Your task to perform on an android device: Open Youtube and go to the subscriptions tab Image 0: 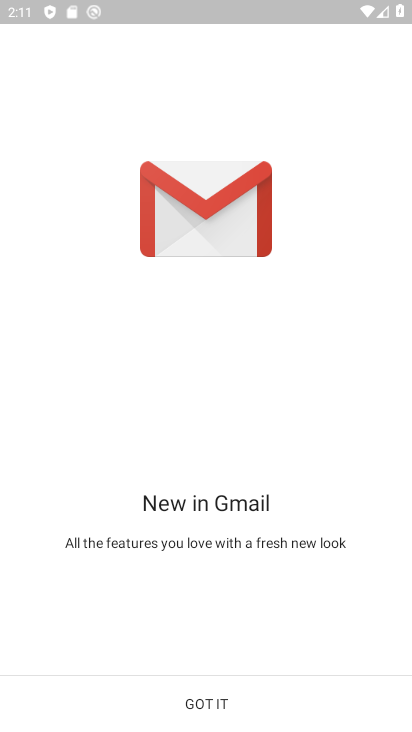
Step 0: press home button
Your task to perform on an android device: Open Youtube and go to the subscriptions tab Image 1: 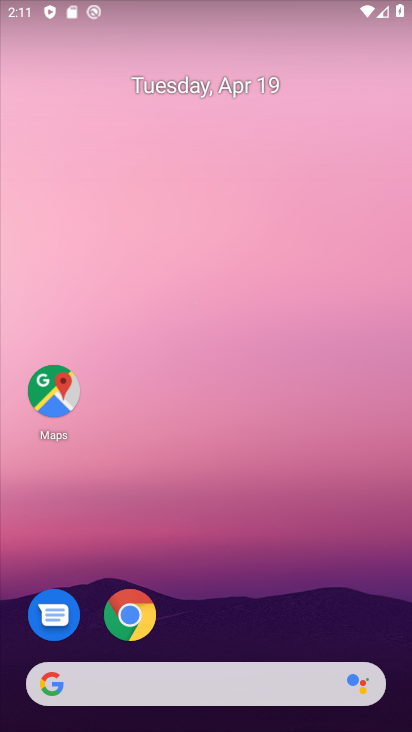
Step 1: drag from (207, 417) to (284, 3)
Your task to perform on an android device: Open Youtube and go to the subscriptions tab Image 2: 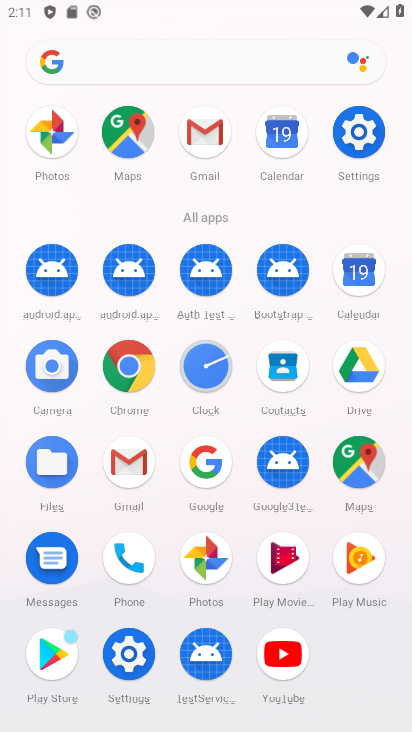
Step 2: click (281, 650)
Your task to perform on an android device: Open Youtube and go to the subscriptions tab Image 3: 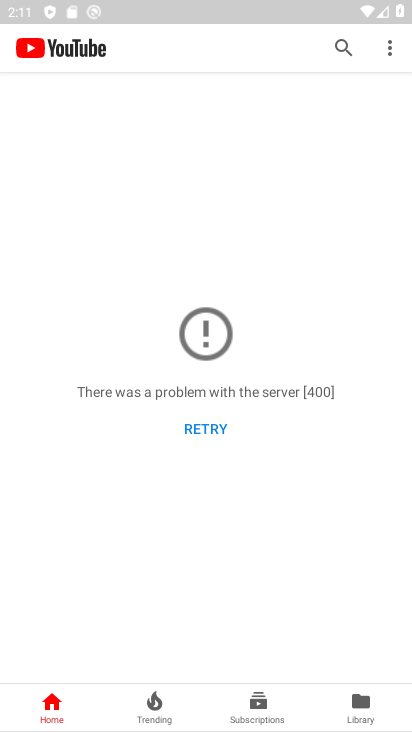
Step 3: click (259, 704)
Your task to perform on an android device: Open Youtube and go to the subscriptions tab Image 4: 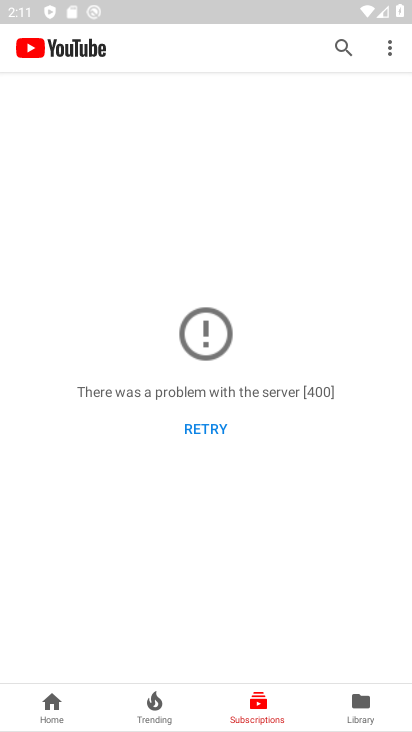
Step 4: task complete